Your task to perform on an android device: make emails show in primary in the gmail app Image 0: 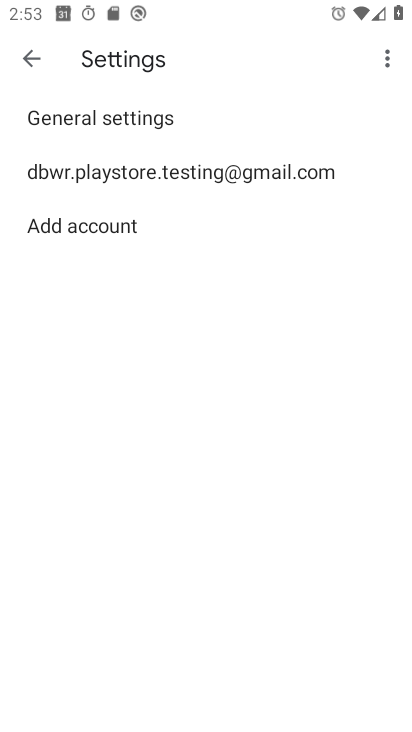
Step 0: click (175, 183)
Your task to perform on an android device: make emails show in primary in the gmail app Image 1: 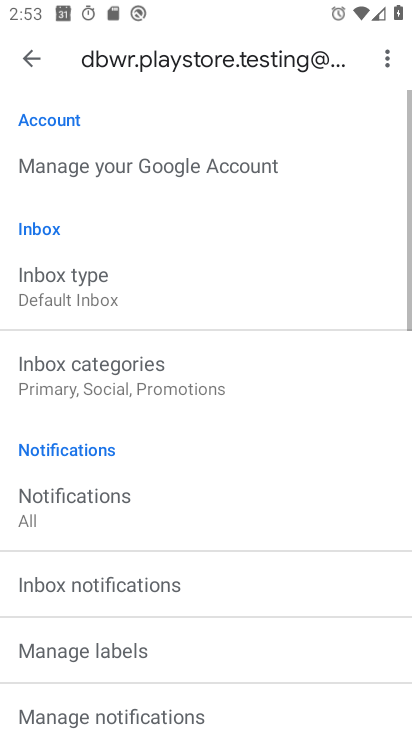
Step 1: drag from (126, 289) to (168, 128)
Your task to perform on an android device: make emails show in primary in the gmail app Image 2: 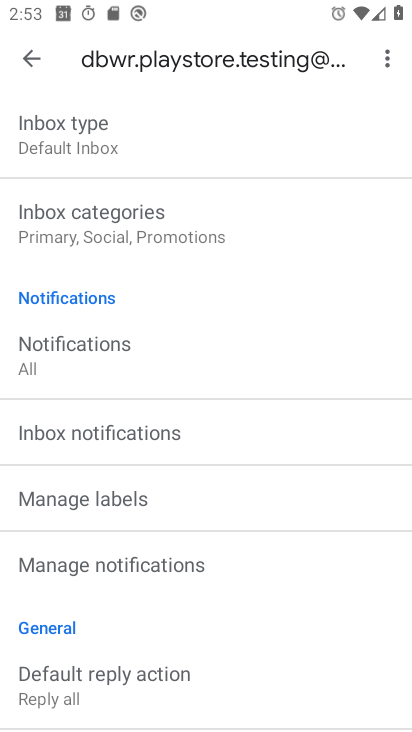
Step 2: click (141, 210)
Your task to perform on an android device: make emails show in primary in the gmail app Image 3: 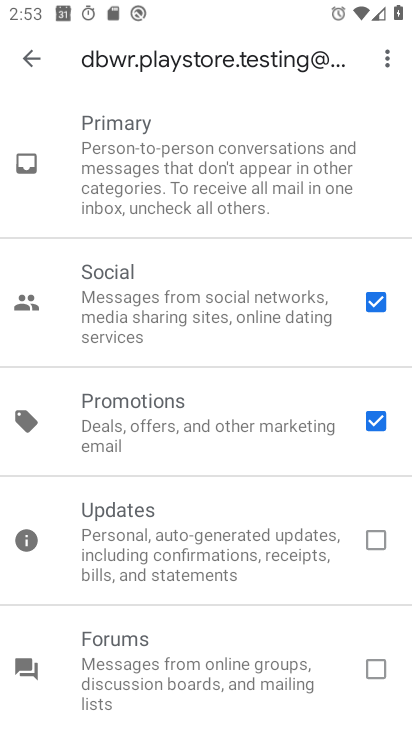
Step 3: click (368, 301)
Your task to perform on an android device: make emails show in primary in the gmail app Image 4: 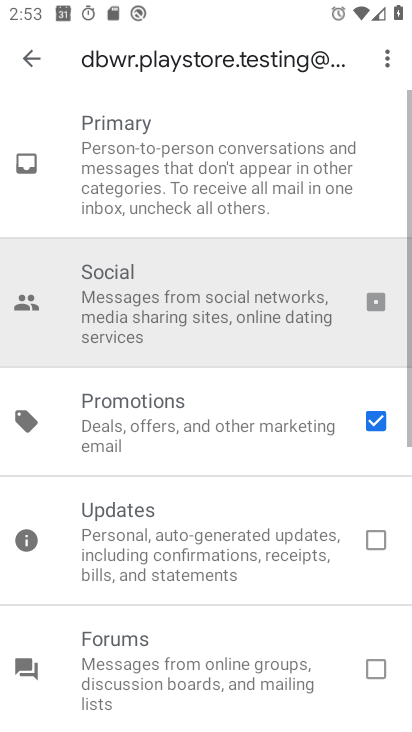
Step 4: click (380, 418)
Your task to perform on an android device: make emails show in primary in the gmail app Image 5: 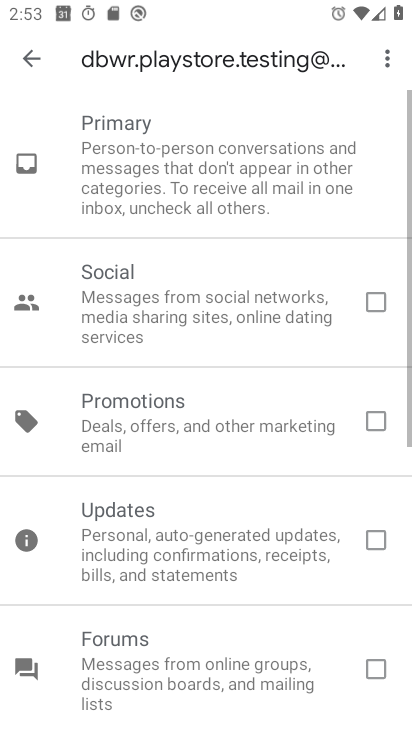
Step 5: task complete